Your task to perform on an android device: View the shopping cart on ebay. Add jbl charge 4 to the cart on ebay, then select checkout. Image 0: 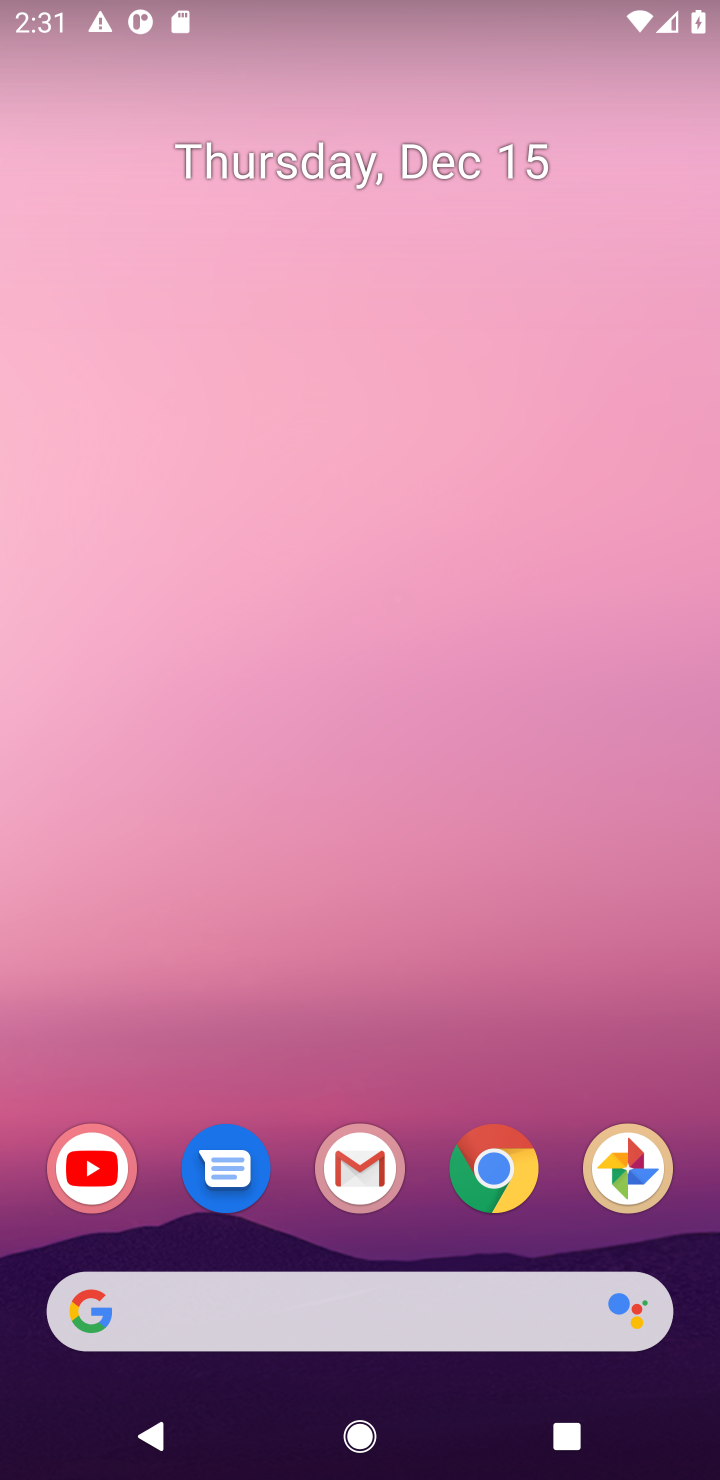
Step 0: click (478, 1172)
Your task to perform on an android device: View the shopping cart on ebay. Add jbl charge 4 to the cart on ebay, then select checkout. Image 1: 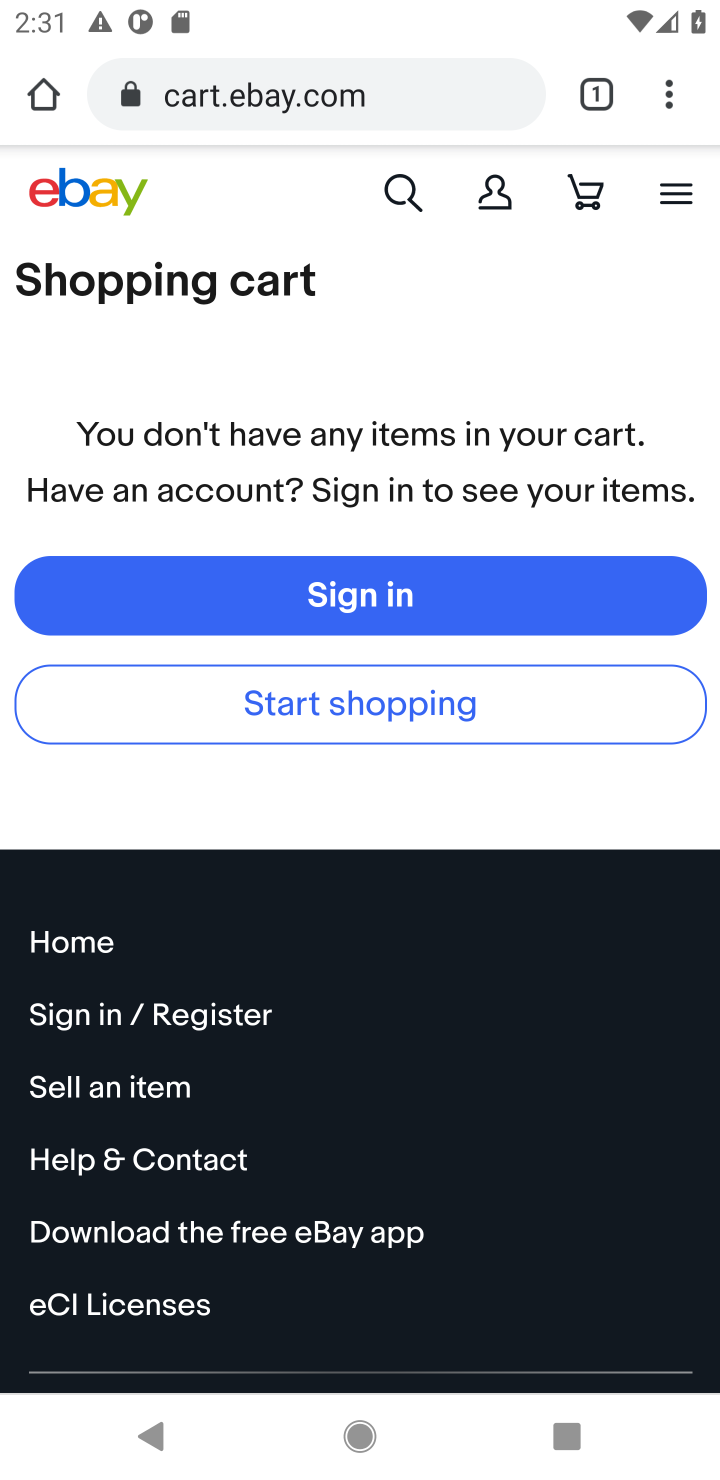
Step 1: click (594, 199)
Your task to perform on an android device: View the shopping cart on ebay. Add jbl charge 4 to the cart on ebay, then select checkout. Image 2: 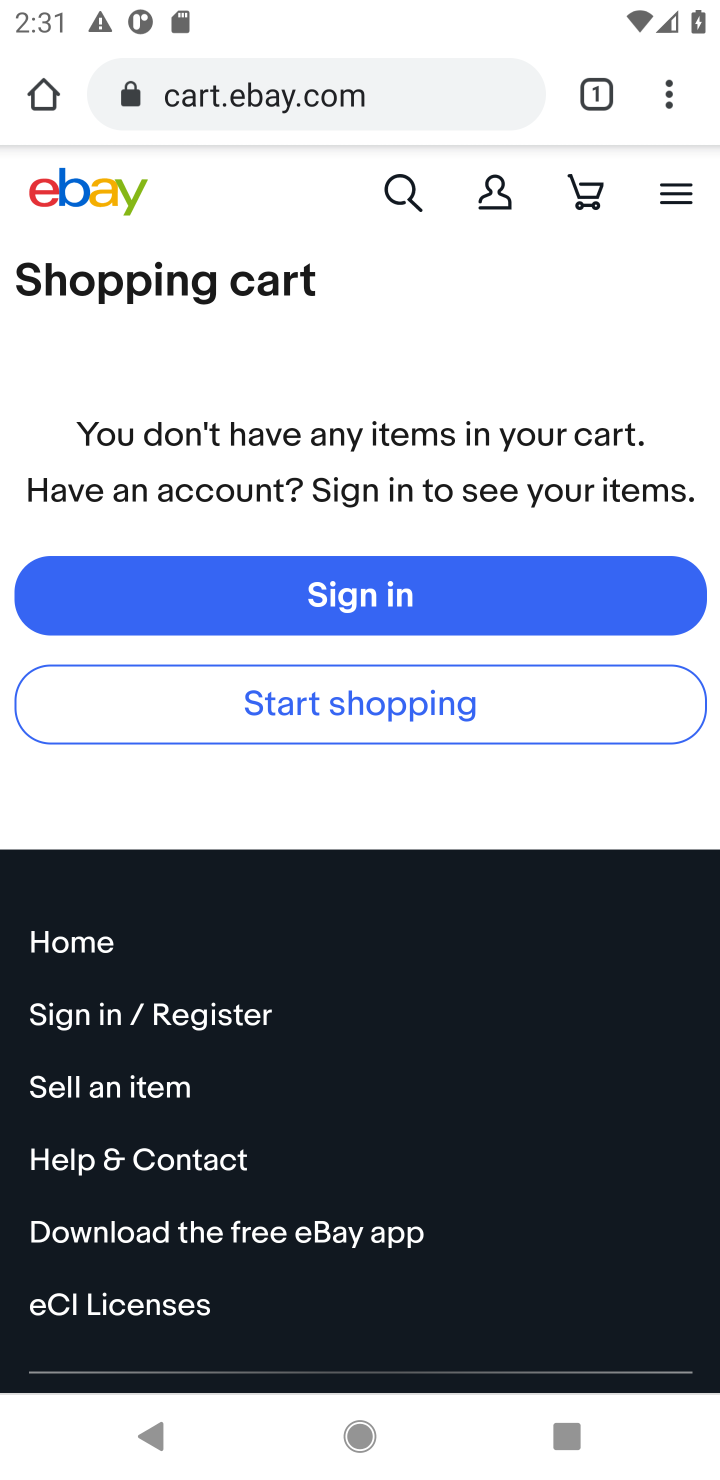
Step 2: click (391, 190)
Your task to perform on an android device: View the shopping cart on ebay. Add jbl charge 4 to the cart on ebay, then select checkout. Image 3: 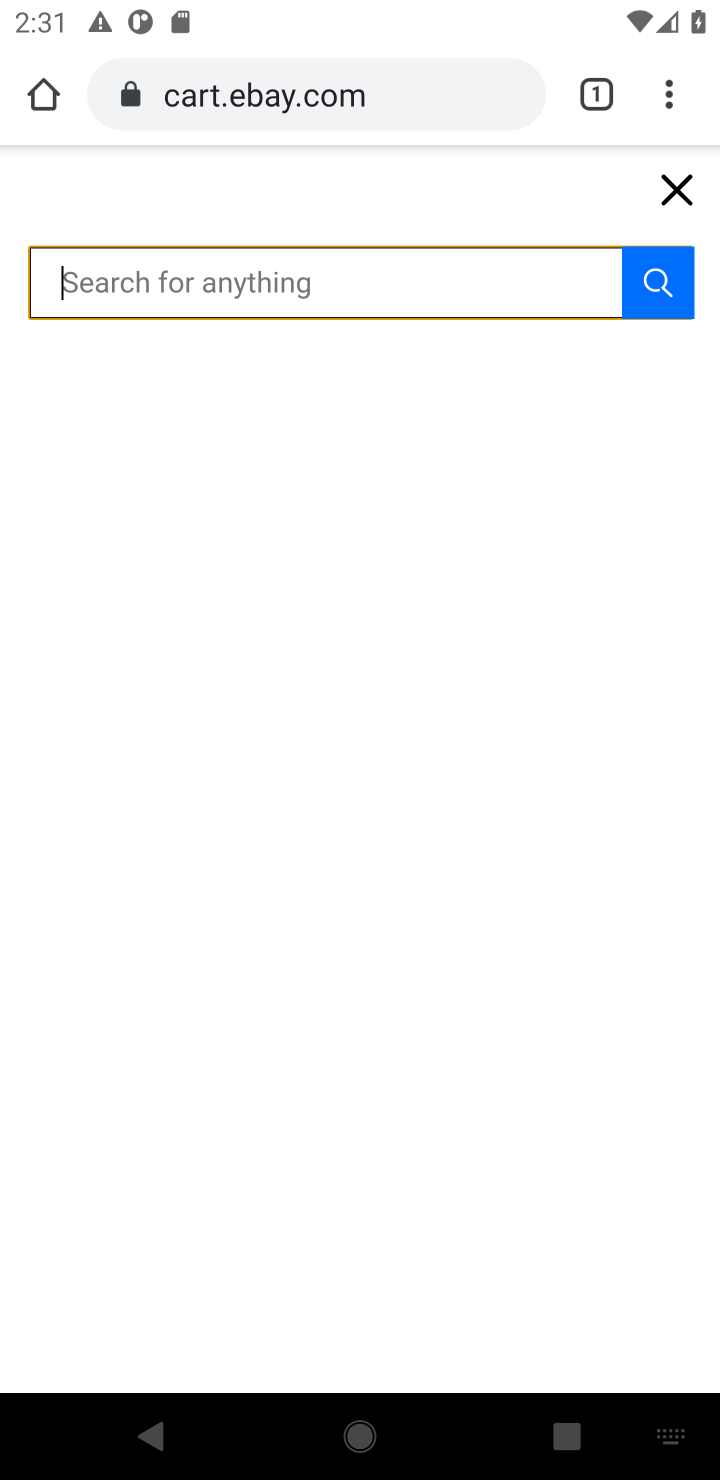
Step 3: type "jbl charge 4 "
Your task to perform on an android device: View the shopping cart on ebay. Add jbl charge 4 to the cart on ebay, then select checkout. Image 4: 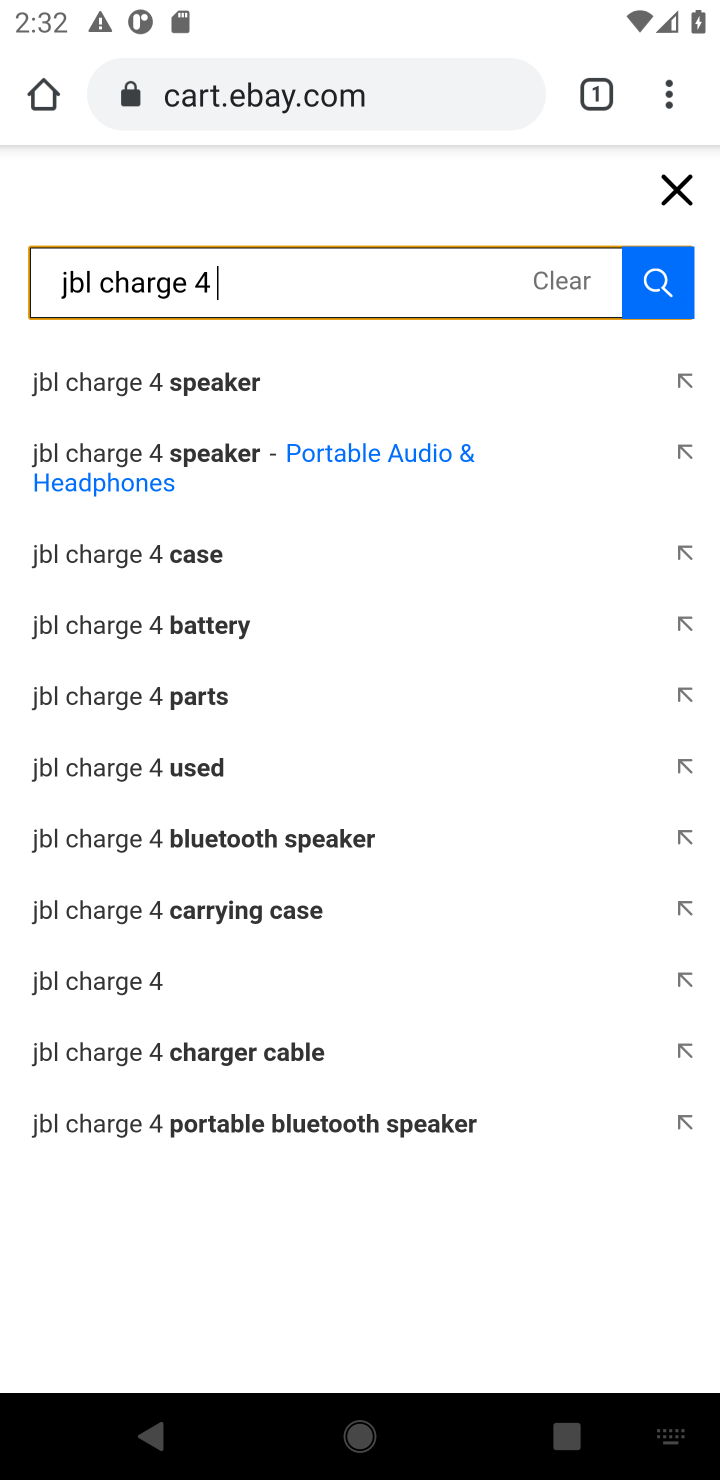
Step 4: click (126, 973)
Your task to perform on an android device: View the shopping cart on ebay. Add jbl charge 4 to the cart on ebay, then select checkout. Image 5: 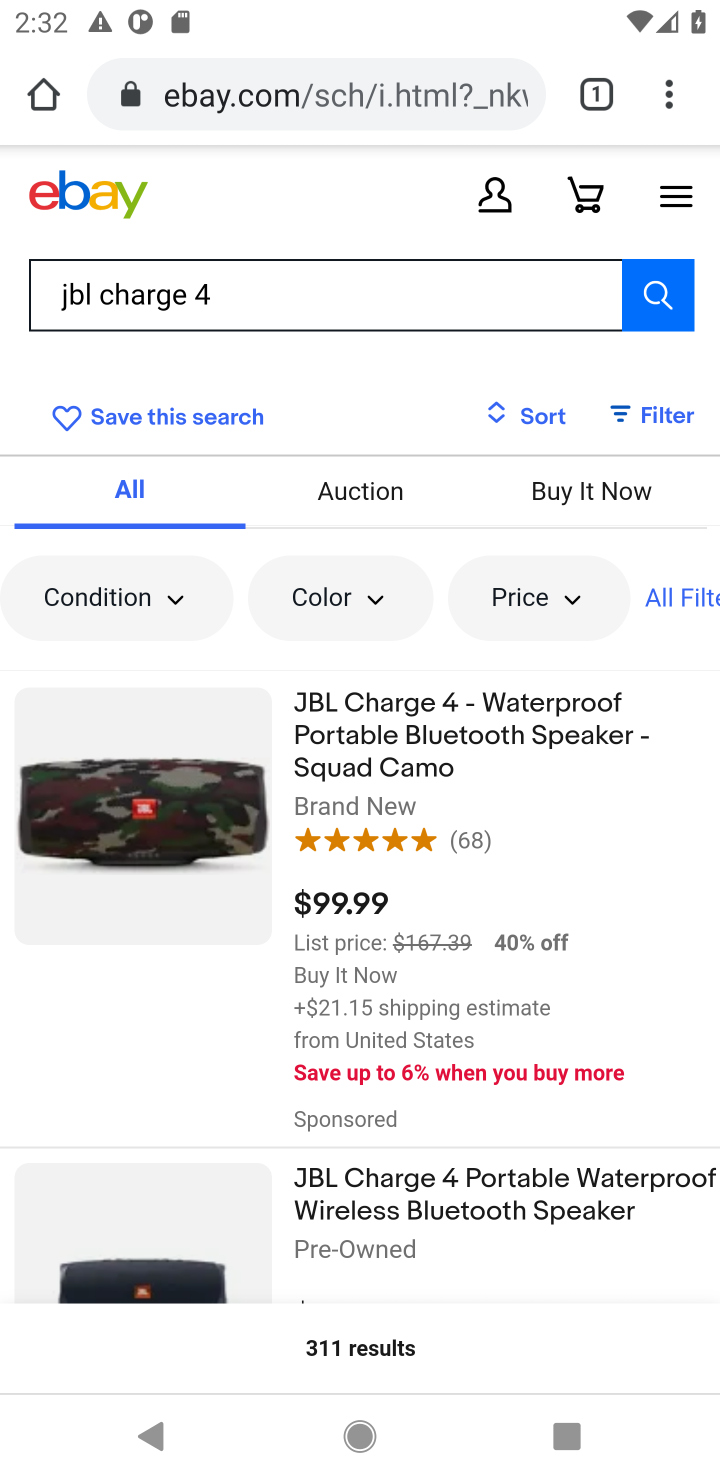
Step 5: click (169, 759)
Your task to perform on an android device: View the shopping cart on ebay. Add jbl charge 4 to the cart on ebay, then select checkout. Image 6: 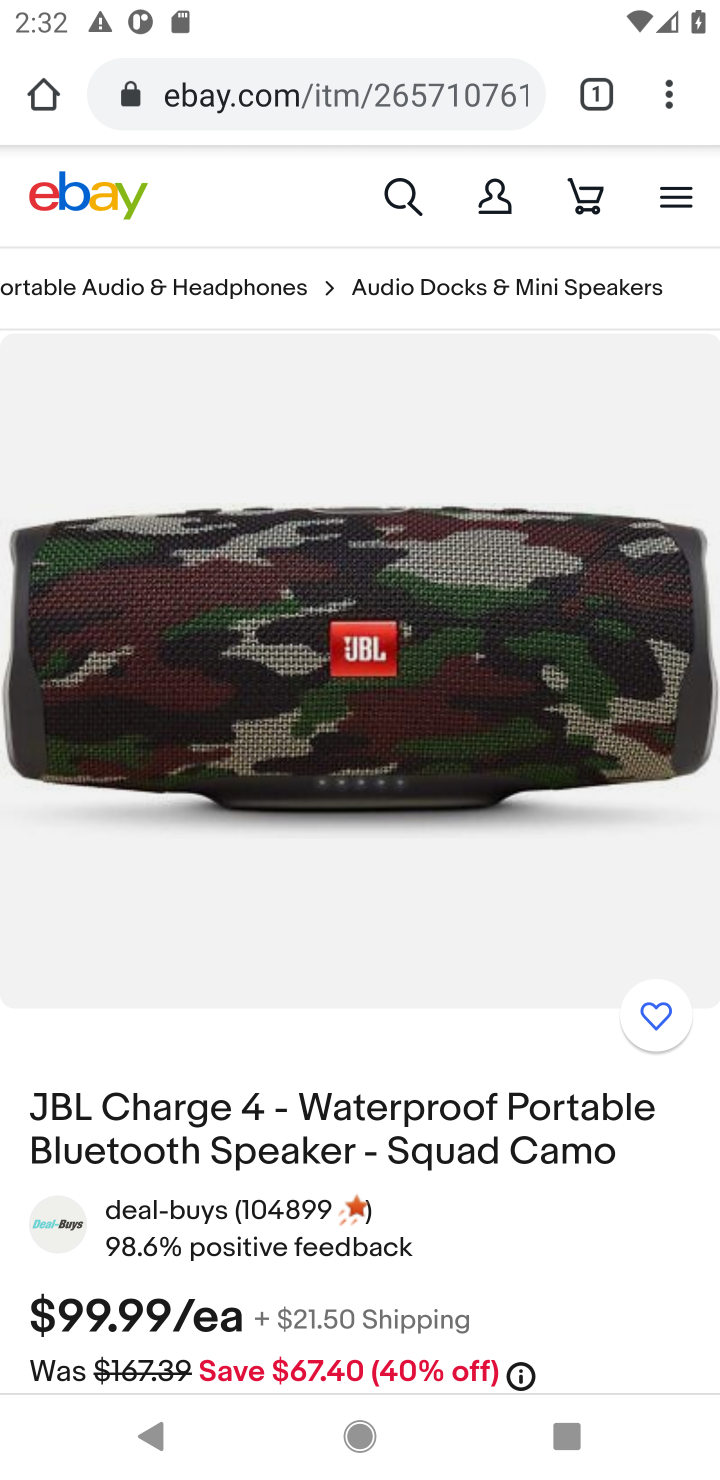
Step 6: drag from (302, 1248) to (672, 683)
Your task to perform on an android device: View the shopping cart on ebay. Add jbl charge 4 to the cart on ebay, then select checkout. Image 7: 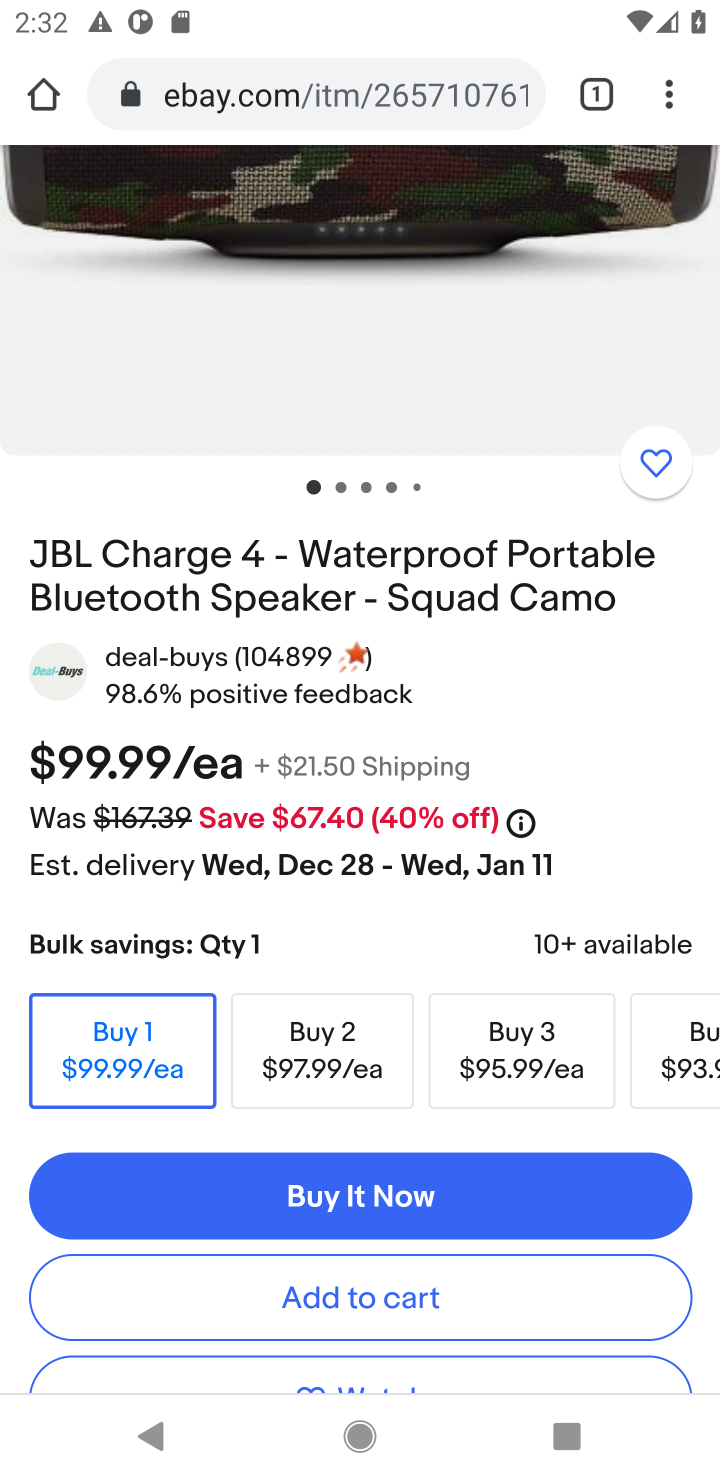
Step 7: click (344, 1283)
Your task to perform on an android device: View the shopping cart on ebay. Add jbl charge 4 to the cart on ebay, then select checkout. Image 8: 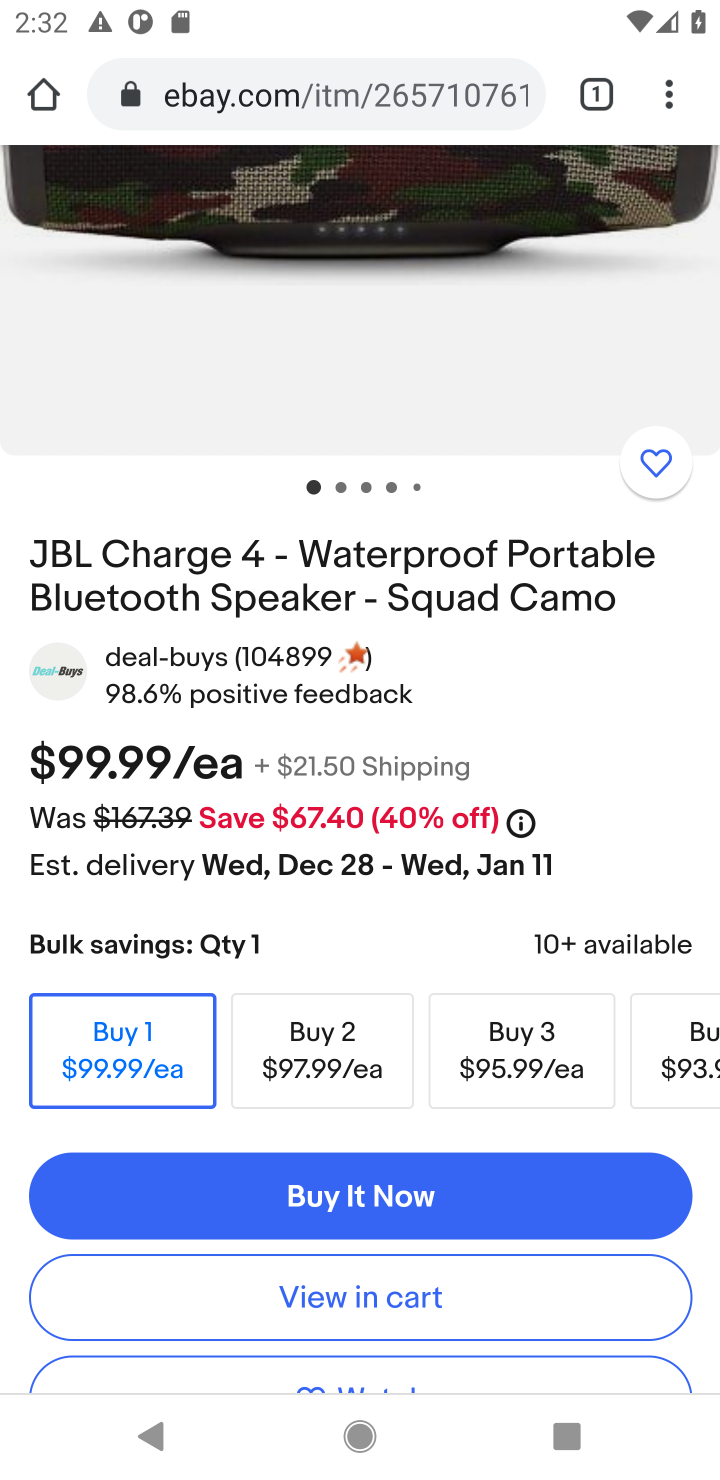
Step 8: click (345, 1279)
Your task to perform on an android device: View the shopping cart on ebay. Add jbl charge 4 to the cart on ebay, then select checkout. Image 9: 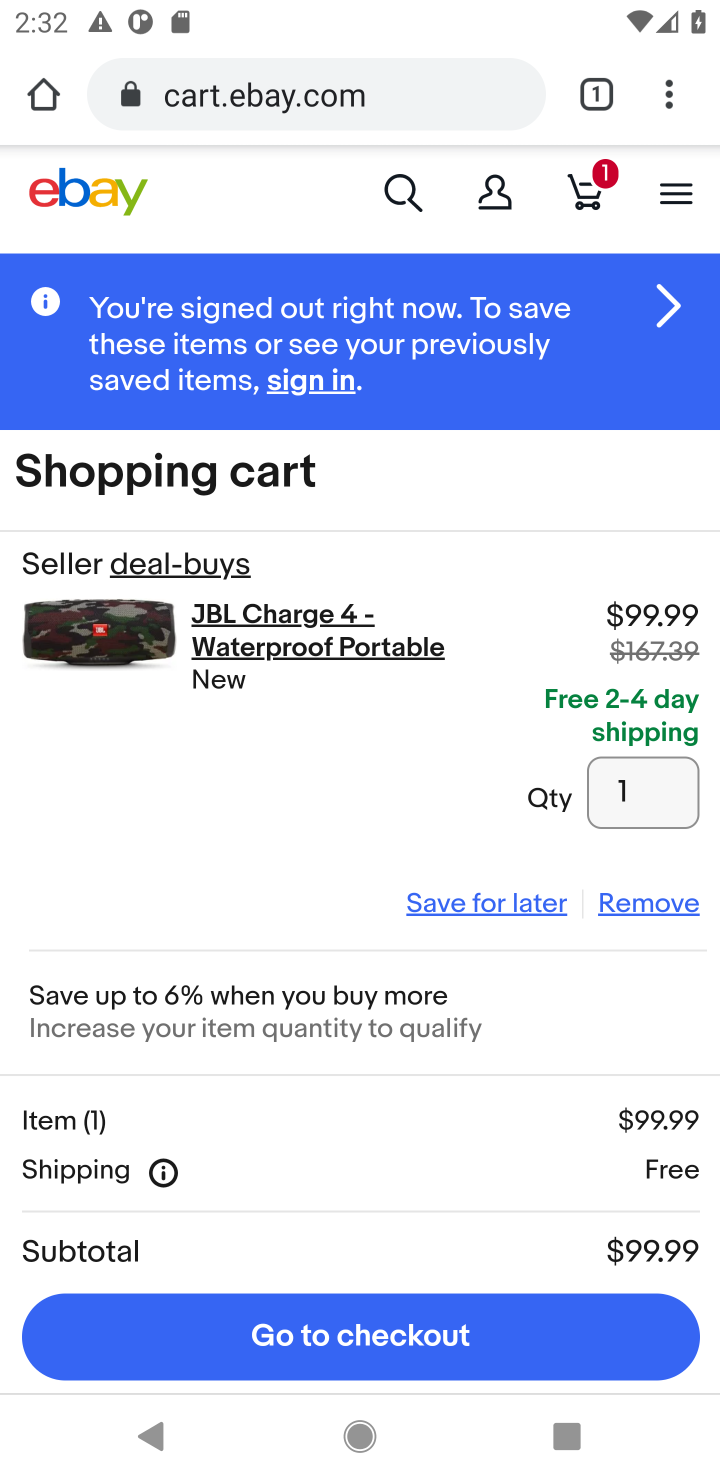
Step 9: click (382, 1337)
Your task to perform on an android device: View the shopping cart on ebay. Add jbl charge 4 to the cart on ebay, then select checkout. Image 10: 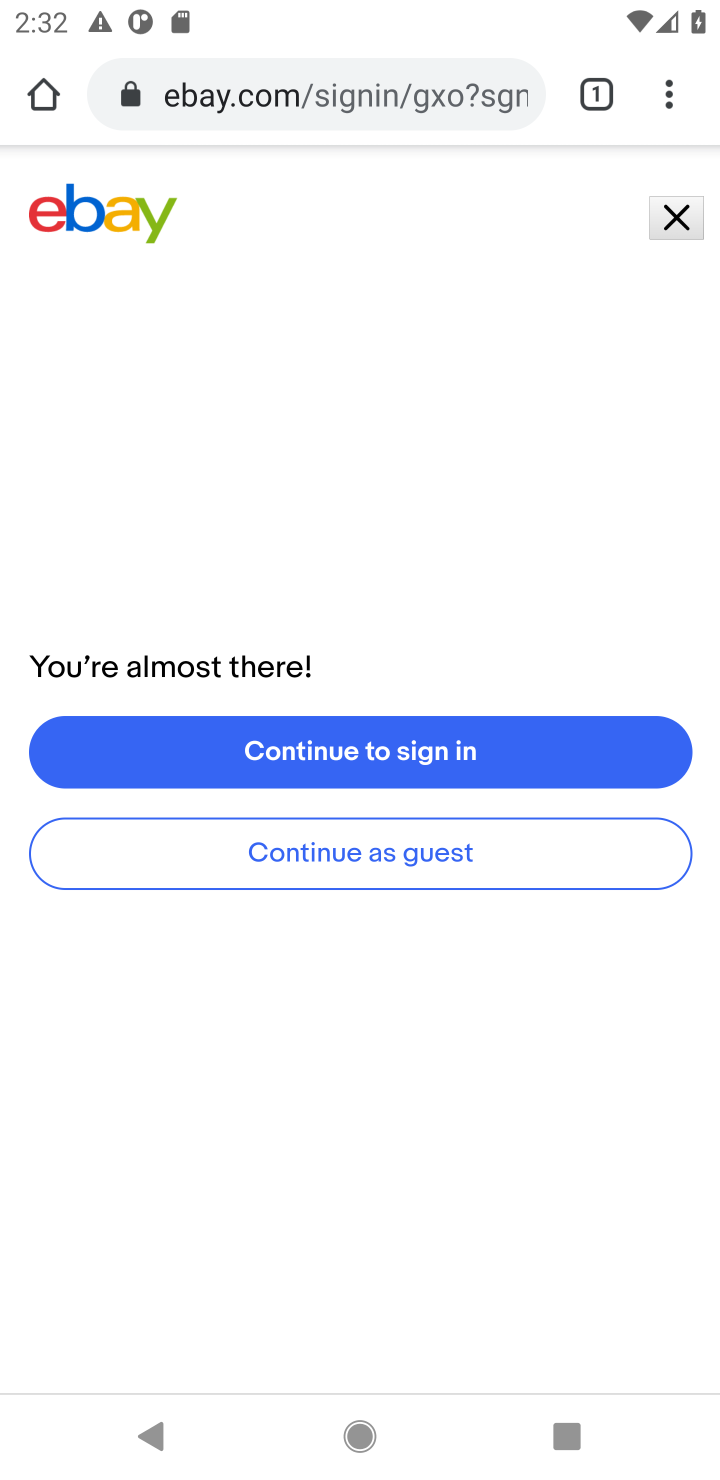
Step 10: task complete